Your task to perform on an android device: Go to location settings Image 0: 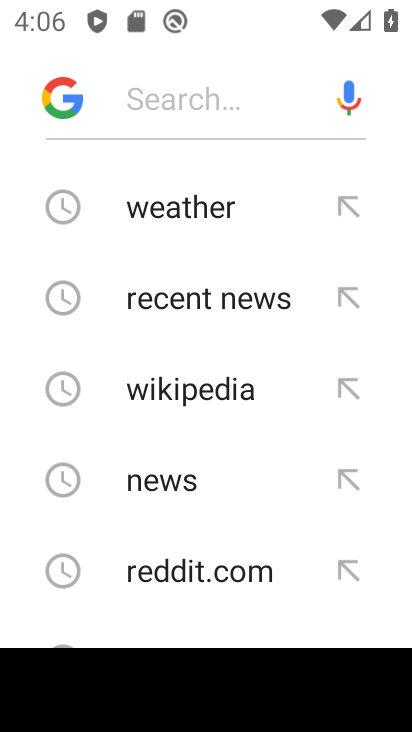
Step 0: press home button
Your task to perform on an android device: Go to location settings Image 1: 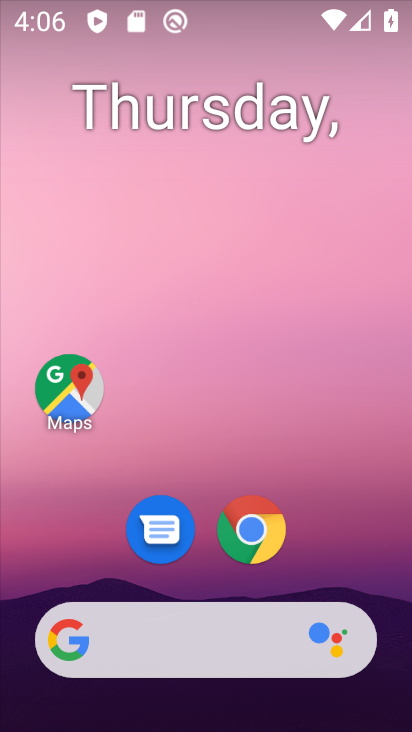
Step 1: drag from (206, 572) to (244, 95)
Your task to perform on an android device: Go to location settings Image 2: 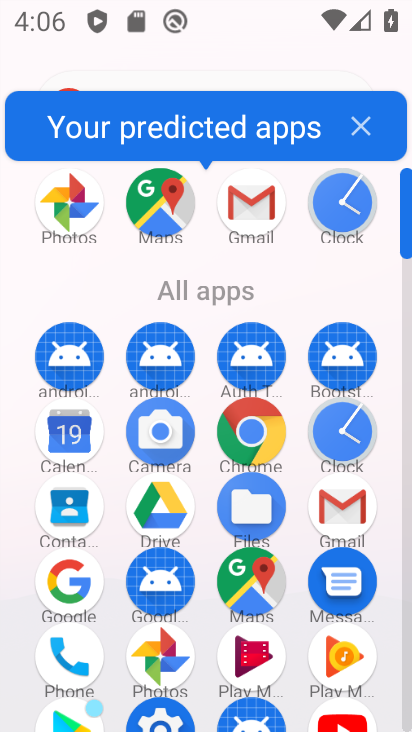
Step 2: drag from (198, 623) to (222, 170)
Your task to perform on an android device: Go to location settings Image 3: 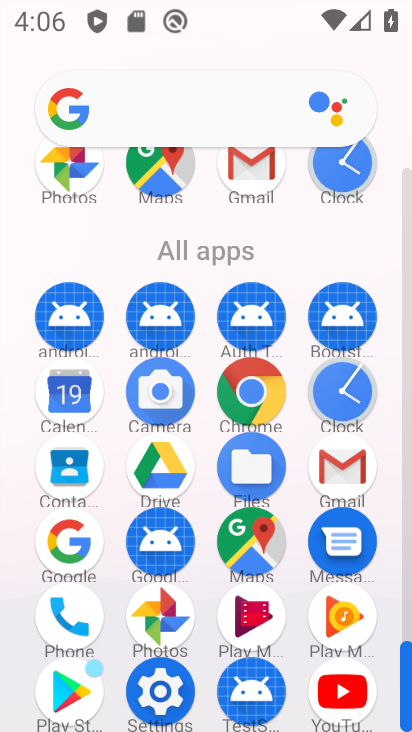
Step 3: click (159, 679)
Your task to perform on an android device: Go to location settings Image 4: 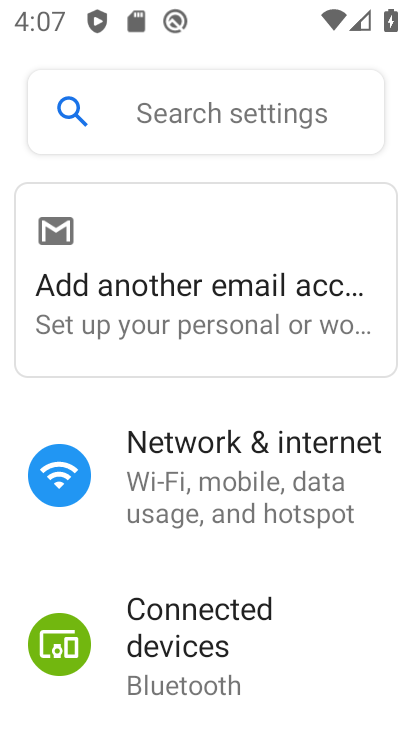
Step 4: drag from (252, 680) to (273, 208)
Your task to perform on an android device: Go to location settings Image 5: 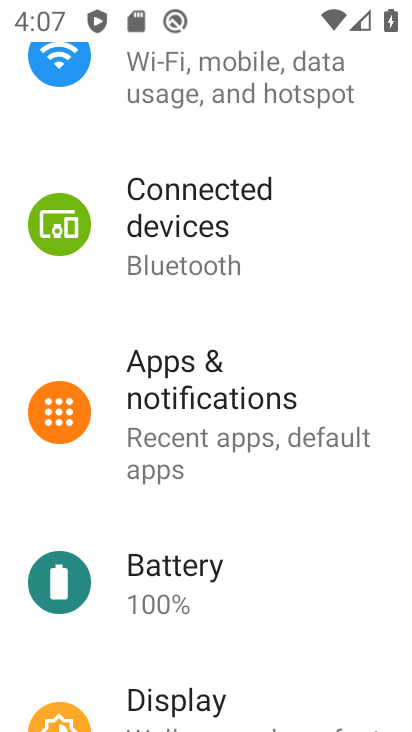
Step 5: drag from (254, 693) to (261, 189)
Your task to perform on an android device: Go to location settings Image 6: 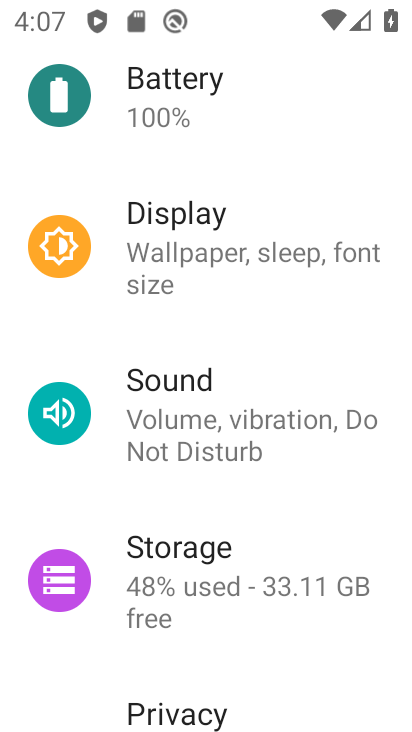
Step 6: drag from (266, 676) to (275, 155)
Your task to perform on an android device: Go to location settings Image 7: 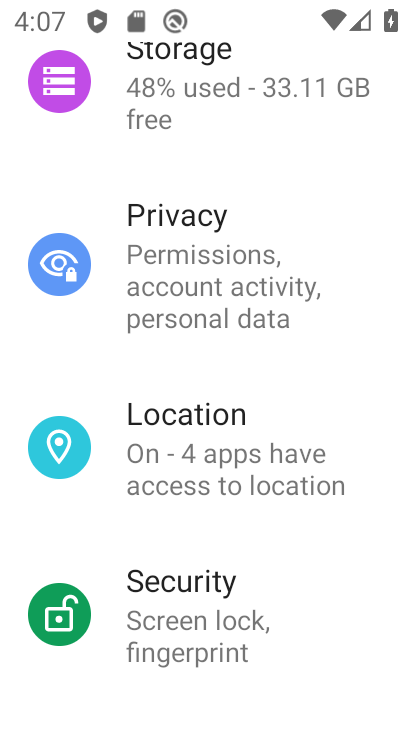
Step 7: click (256, 420)
Your task to perform on an android device: Go to location settings Image 8: 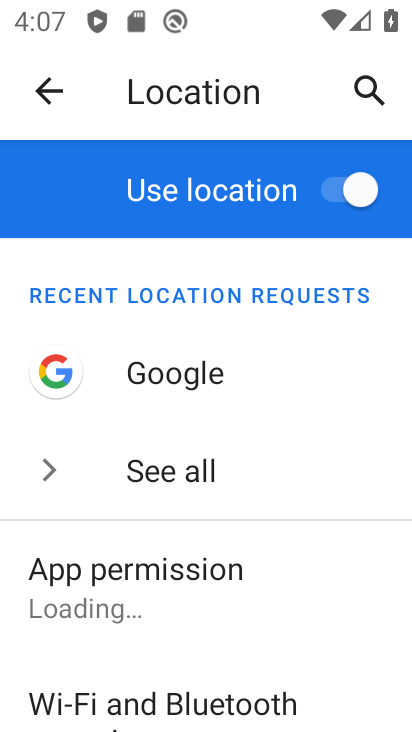
Step 8: drag from (198, 662) to (244, 231)
Your task to perform on an android device: Go to location settings Image 9: 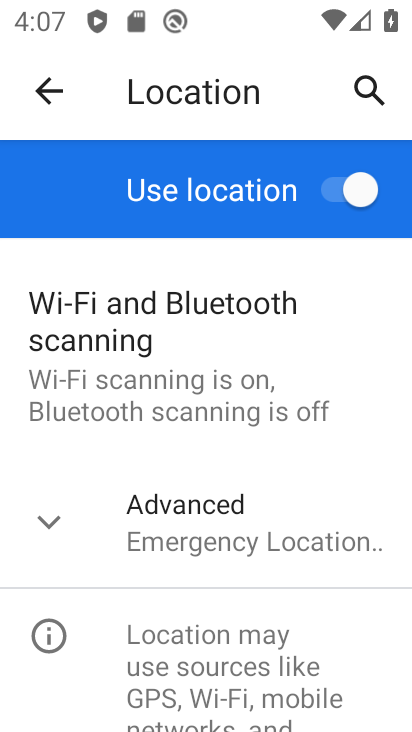
Step 9: click (49, 517)
Your task to perform on an android device: Go to location settings Image 10: 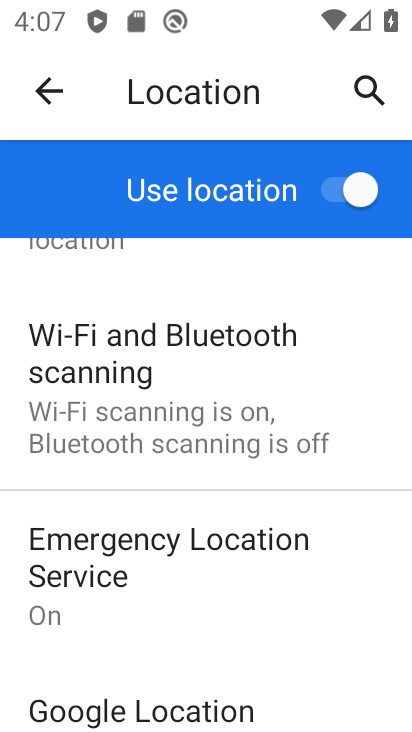
Step 10: task complete